Your task to perform on an android device: turn on translation in the chrome app Image 0: 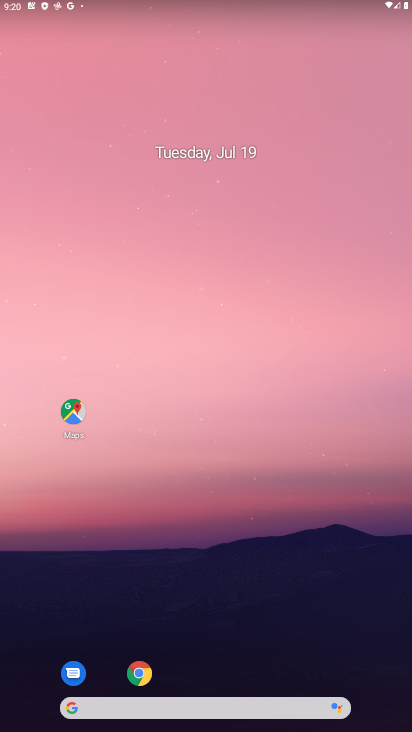
Step 0: click (141, 668)
Your task to perform on an android device: turn on translation in the chrome app Image 1: 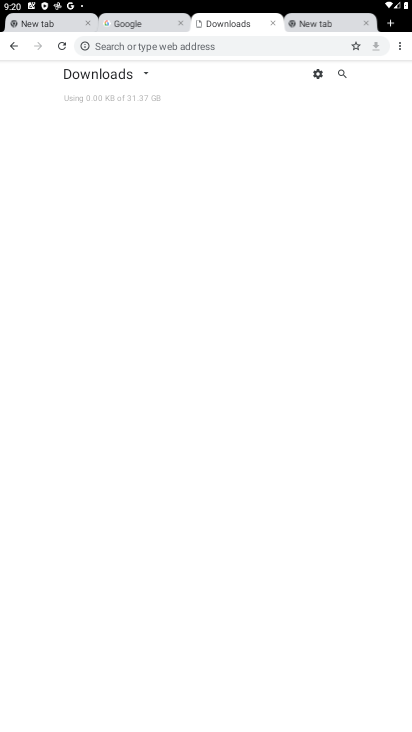
Step 1: click (401, 48)
Your task to perform on an android device: turn on translation in the chrome app Image 2: 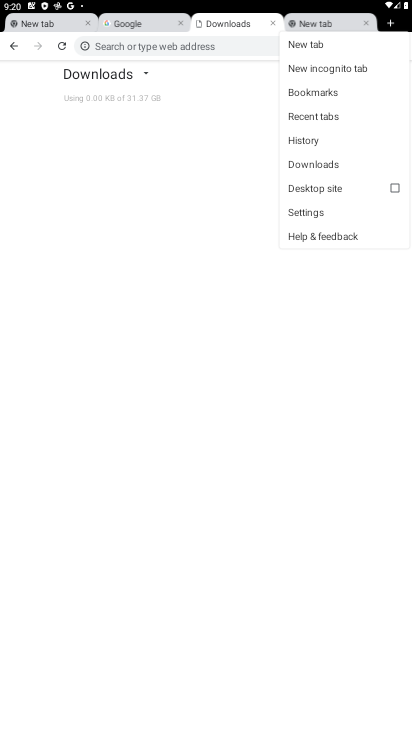
Step 2: click (319, 213)
Your task to perform on an android device: turn on translation in the chrome app Image 3: 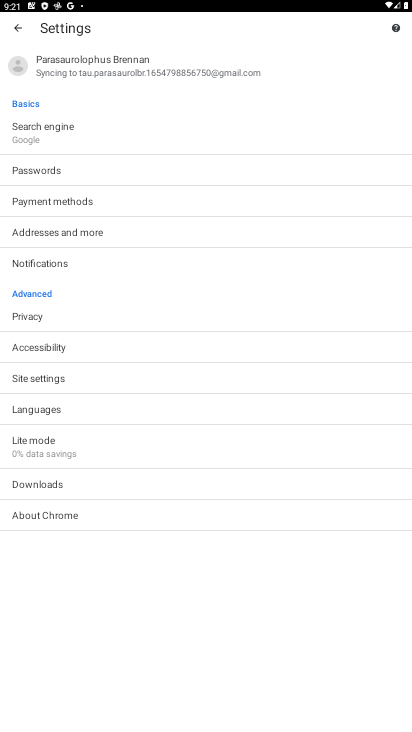
Step 3: click (112, 415)
Your task to perform on an android device: turn on translation in the chrome app Image 4: 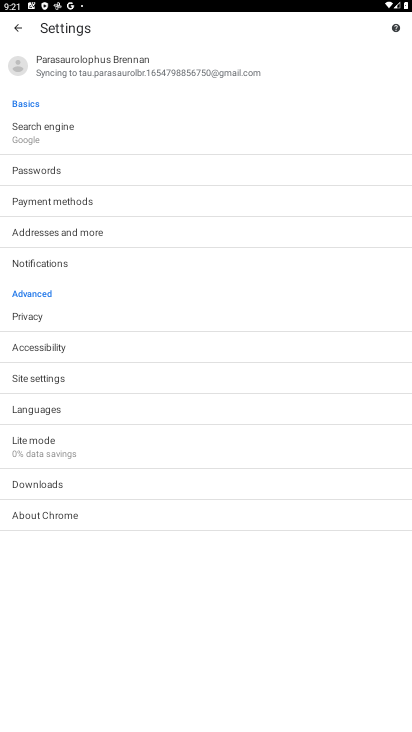
Step 4: task complete